Your task to perform on an android device: delete location history Image 0: 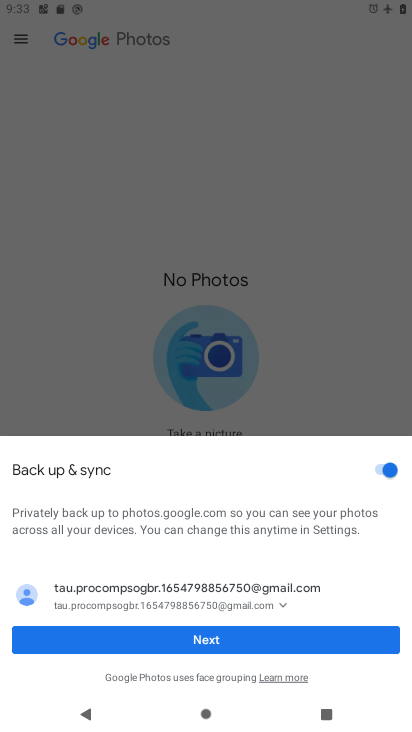
Step 0: press home button
Your task to perform on an android device: delete location history Image 1: 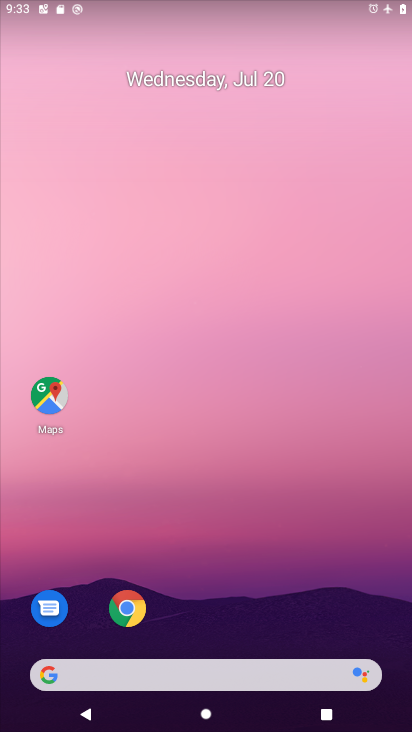
Step 1: drag from (243, 618) to (222, 310)
Your task to perform on an android device: delete location history Image 2: 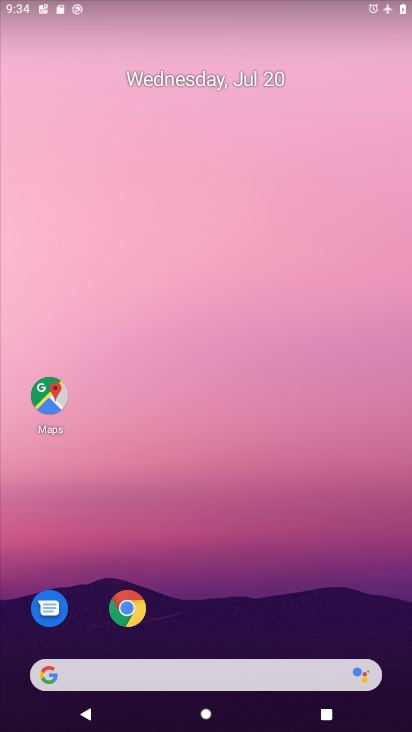
Step 2: drag from (240, 578) to (284, 372)
Your task to perform on an android device: delete location history Image 3: 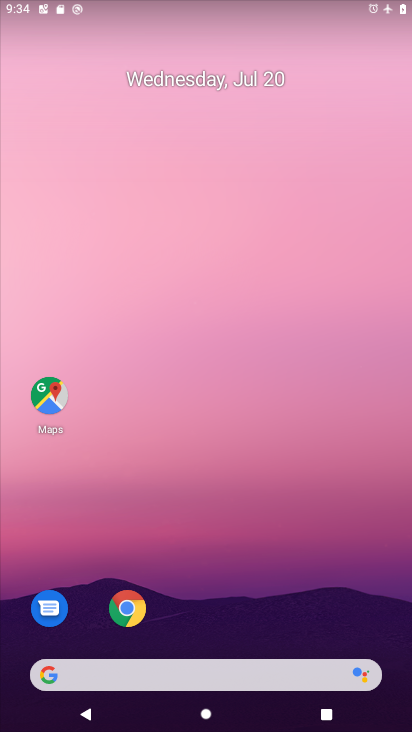
Step 3: click (53, 405)
Your task to perform on an android device: delete location history Image 4: 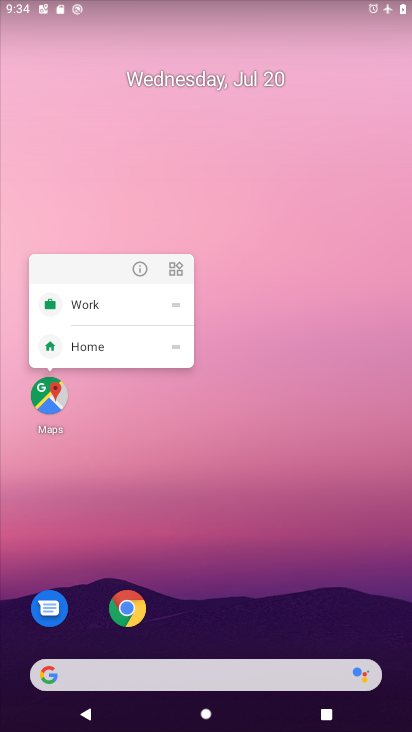
Step 4: click (55, 388)
Your task to perform on an android device: delete location history Image 5: 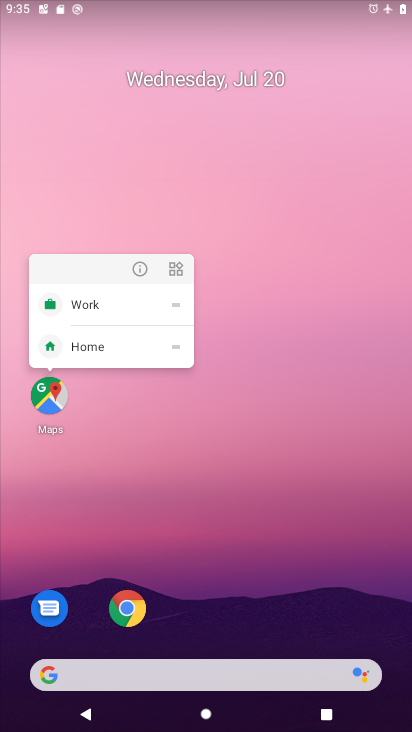
Step 5: click (61, 382)
Your task to perform on an android device: delete location history Image 6: 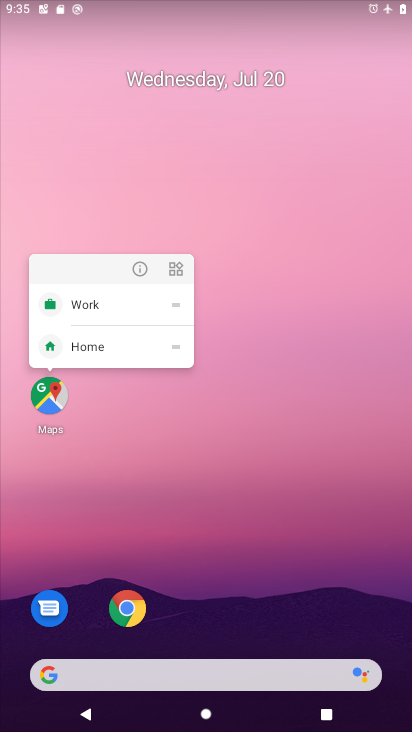
Step 6: click (48, 400)
Your task to perform on an android device: delete location history Image 7: 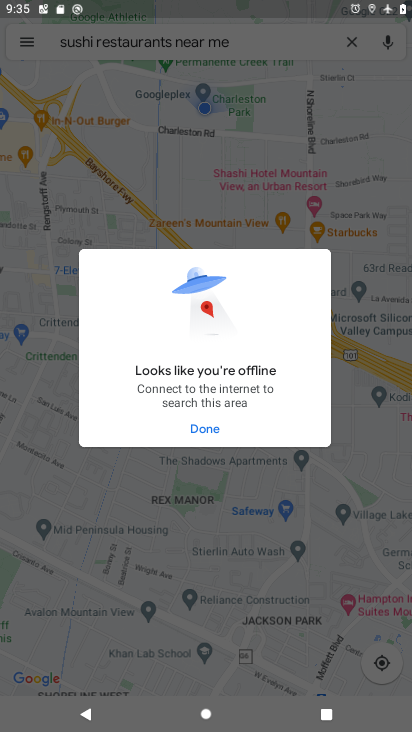
Step 7: click (209, 431)
Your task to perform on an android device: delete location history Image 8: 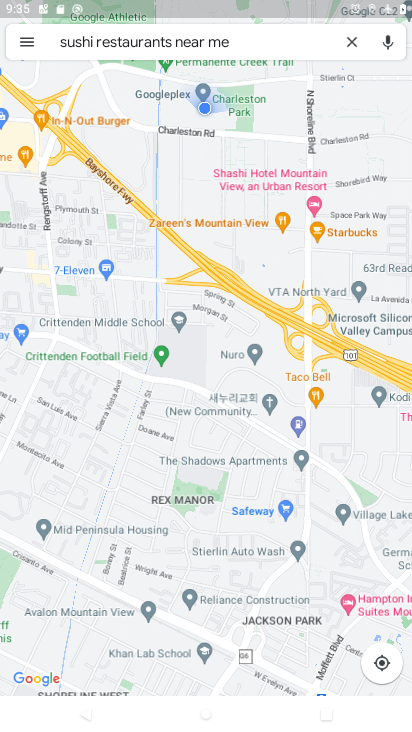
Step 8: click (346, 30)
Your task to perform on an android device: delete location history Image 9: 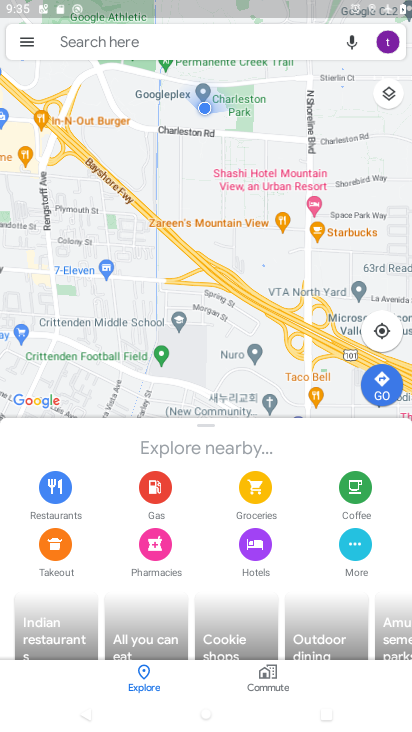
Step 9: click (24, 34)
Your task to perform on an android device: delete location history Image 10: 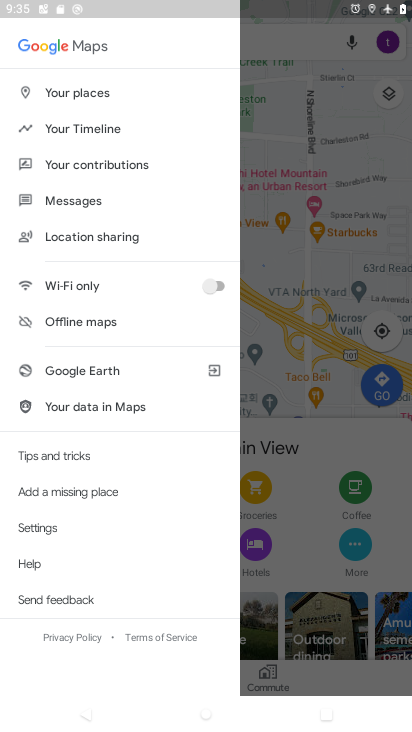
Step 10: click (84, 131)
Your task to perform on an android device: delete location history Image 11: 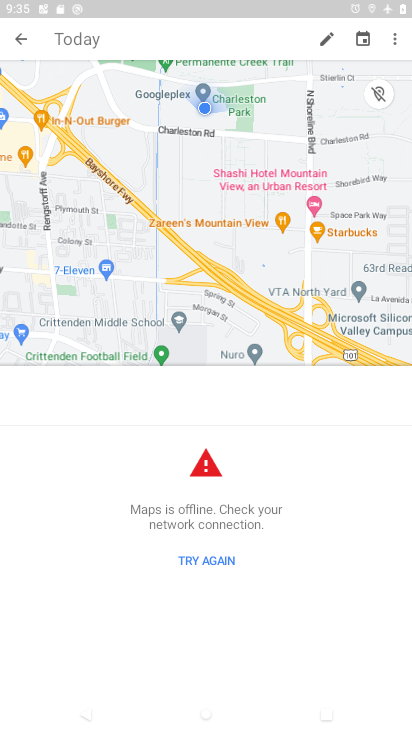
Step 11: click (396, 27)
Your task to perform on an android device: delete location history Image 12: 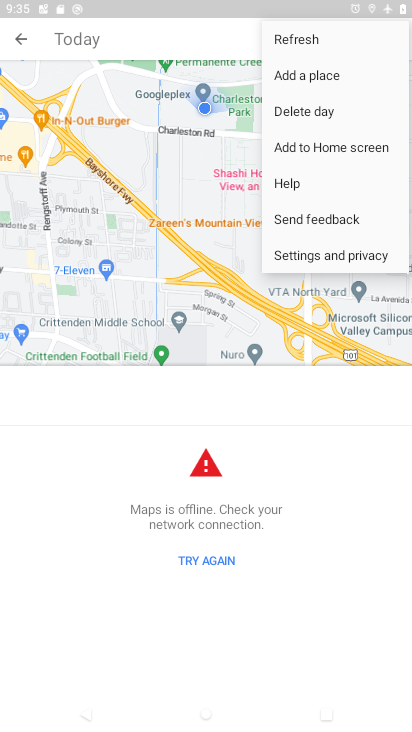
Step 12: click (322, 256)
Your task to perform on an android device: delete location history Image 13: 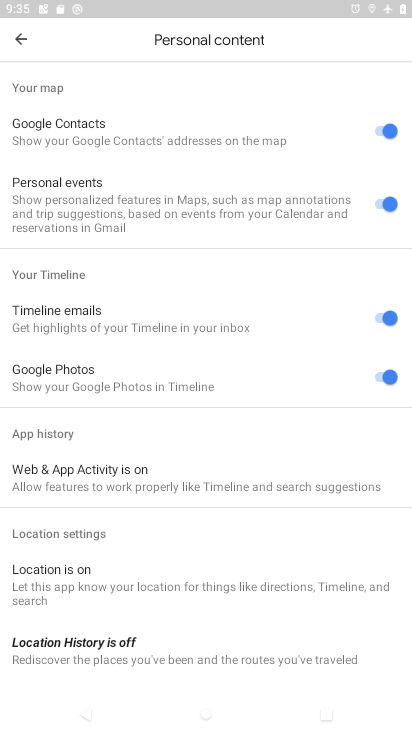
Step 13: drag from (122, 644) to (205, 178)
Your task to perform on an android device: delete location history Image 14: 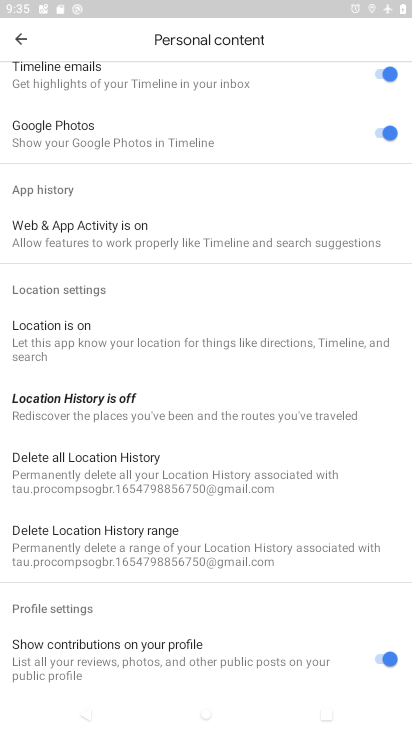
Step 14: click (134, 476)
Your task to perform on an android device: delete location history Image 15: 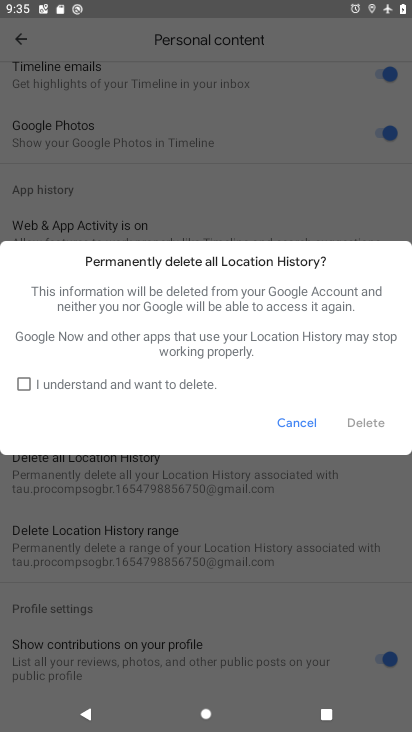
Step 15: click (91, 386)
Your task to perform on an android device: delete location history Image 16: 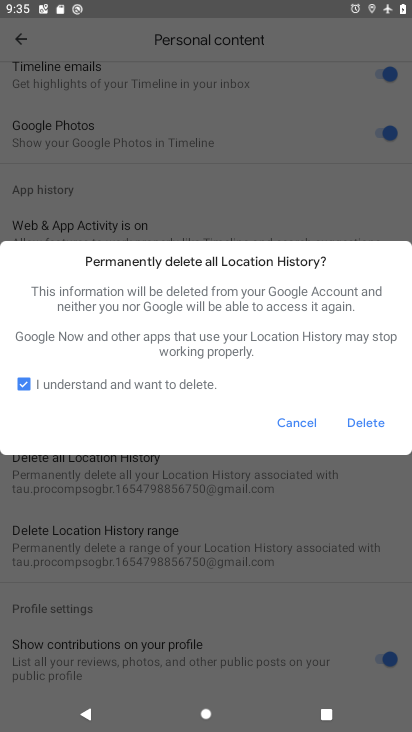
Step 16: click (368, 421)
Your task to perform on an android device: delete location history Image 17: 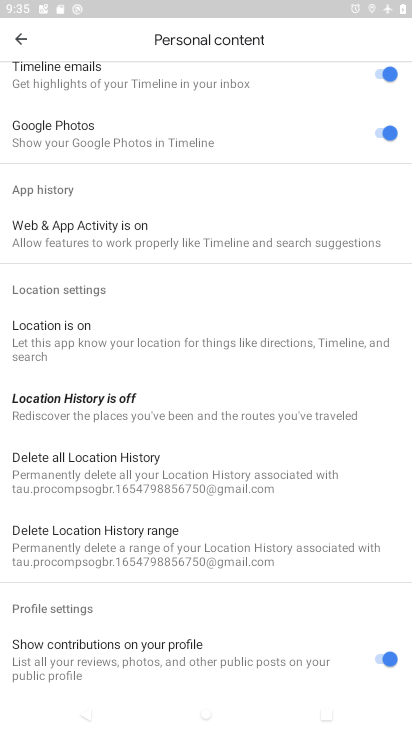
Step 17: task complete